Your task to perform on an android device: turn vacation reply on in the gmail app Image 0: 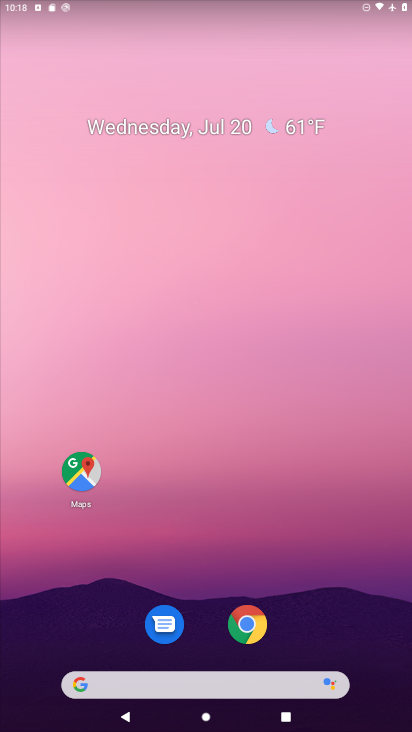
Step 0: drag from (212, 592) to (212, 135)
Your task to perform on an android device: turn vacation reply on in the gmail app Image 1: 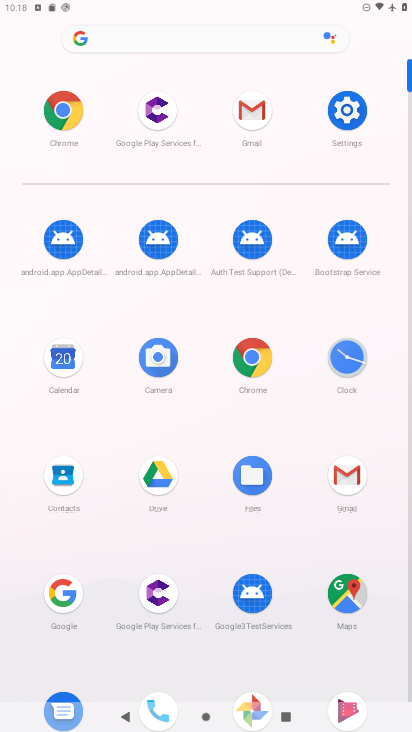
Step 1: click (251, 141)
Your task to perform on an android device: turn vacation reply on in the gmail app Image 2: 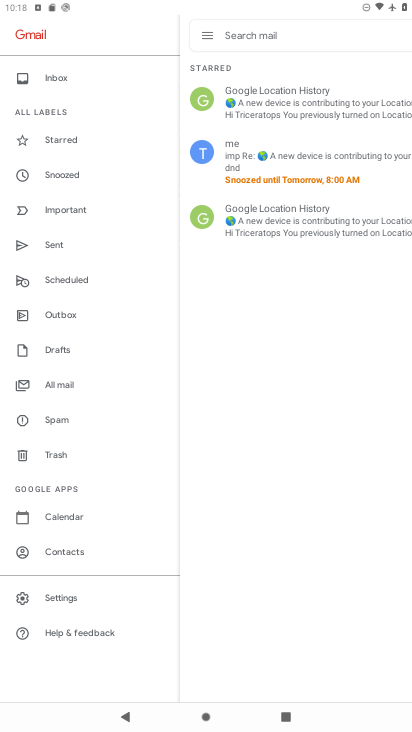
Step 2: click (64, 585)
Your task to perform on an android device: turn vacation reply on in the gmail app Image 3: 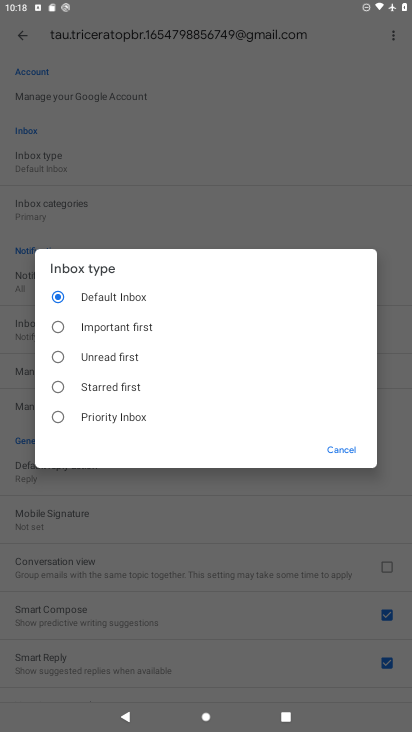
Step 3: click (164, 503)
Your task to perform on an android device: turn vacation reply on in the gmail app Image 4: 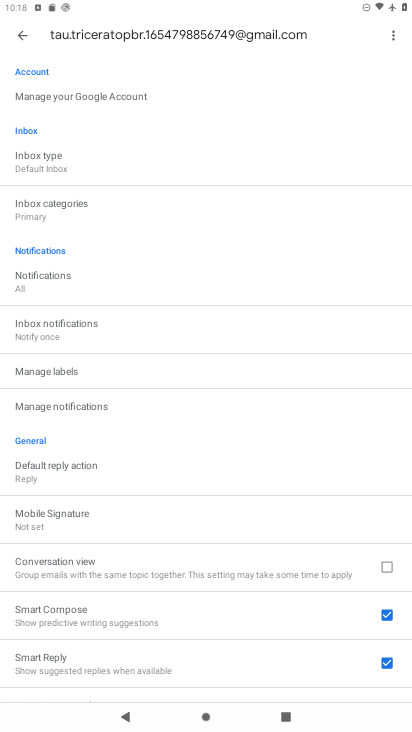
Step 4: drag from (126, 602) to (106, 182)
Your task to perform on an android device: turn vacation reply on in the gmail app Image 5: 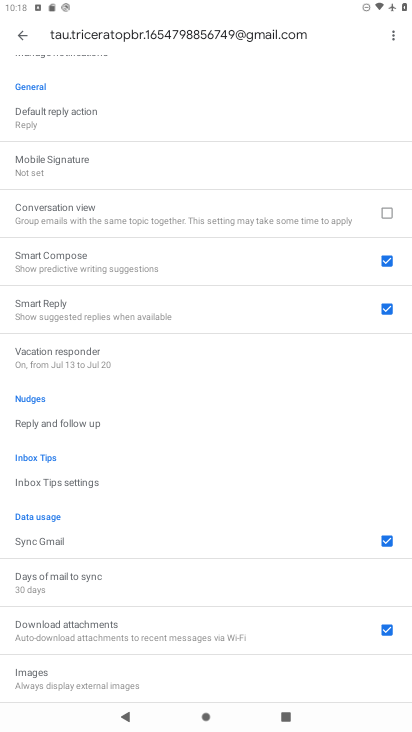
Step 5: click (101, 363)
Your task to perform on an android device: turn vacation reply on in the gmail app Image 6: 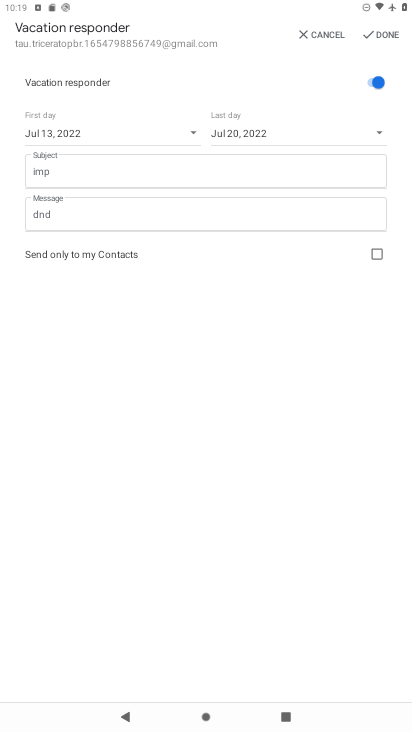
Step 6: task complete